Your task to perform on an android device: turn off priority inbox in the gmail app Image 0: 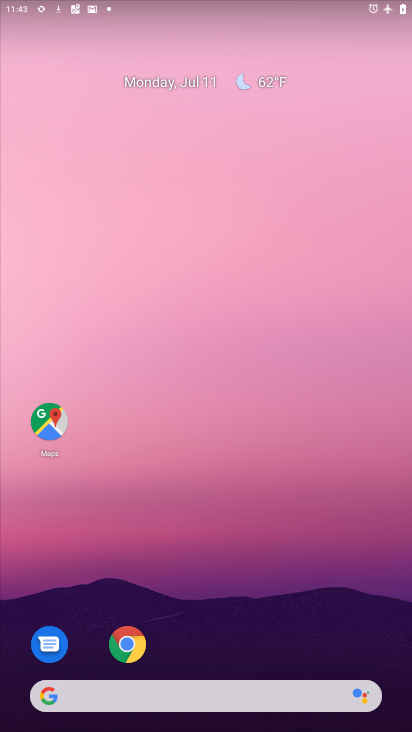
Step 0: drag from (194, 641) to (235, 70)
Your task to perform on an android device: turn off priority inbox in the gmail app Image 1: 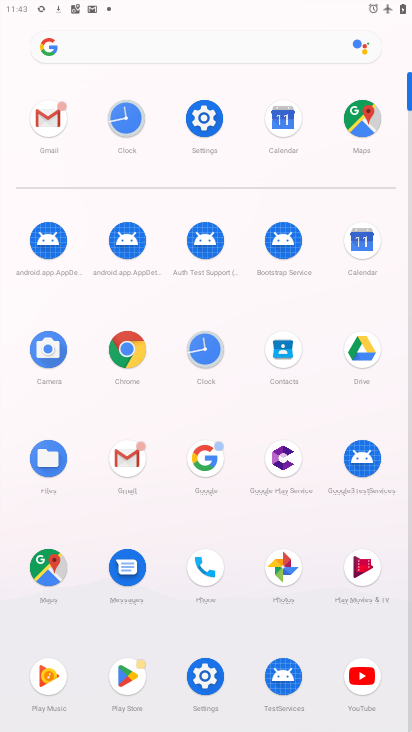
Step 1: click (118, 458)
Your task to perform on an android device: turn off priority inbox in the gmail app Image 2: 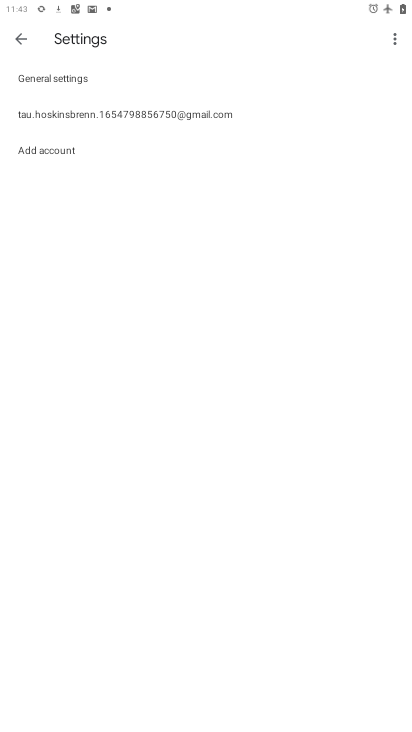
Step 2: click (23, 106)
Your task to perform on an android device: turn off priority inbox in the gmail app Image 3: 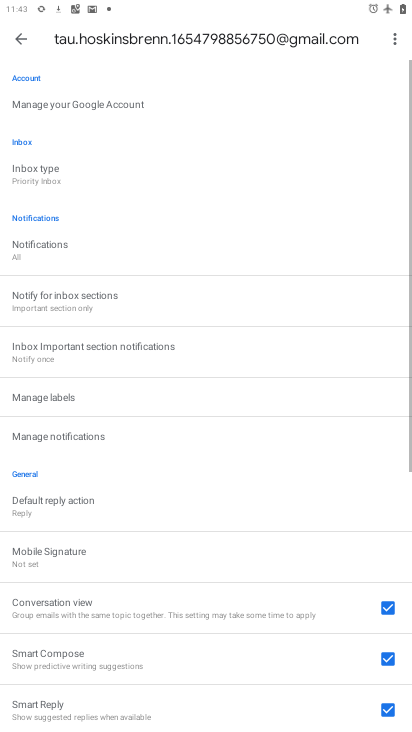
Step 3: click (60, 177)
Your task to perform on an android device: turn off priority inbox in the gmail app Image 4: 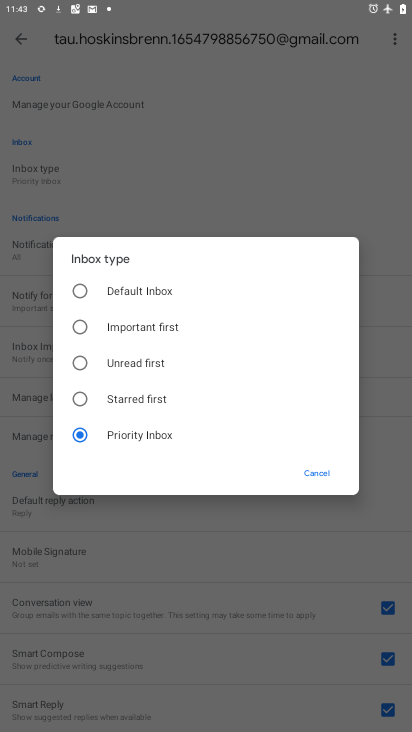
Step 4: click (87, 405)
Your task to perform on an android device: turn off priority inbox in the gmail app Image 5: 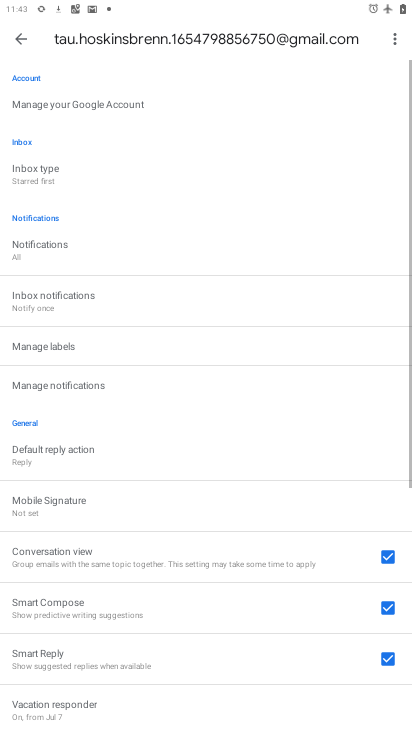
Step 5: task complete